Your task to perform on an android device: Go to Android settings Image 0: 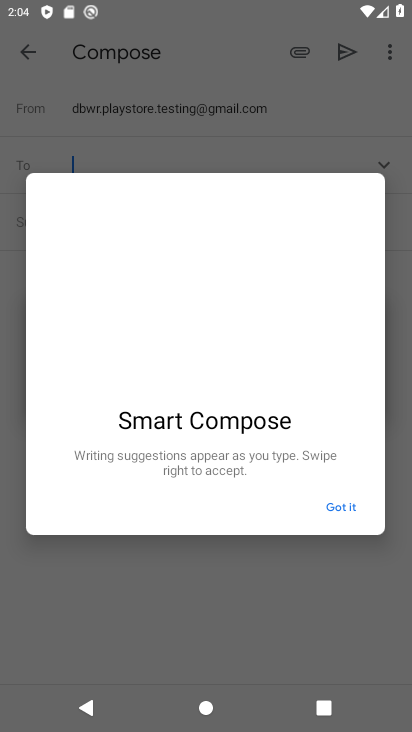
Step 0: press back button
Your task to perform on an android device: Go to Android settings Image 1: 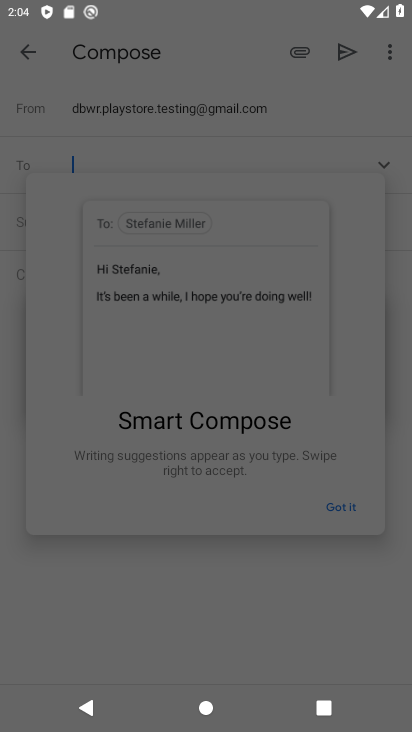
Step 1: press home button
Your task to perform on an android device: Go to Android settings Image 2: 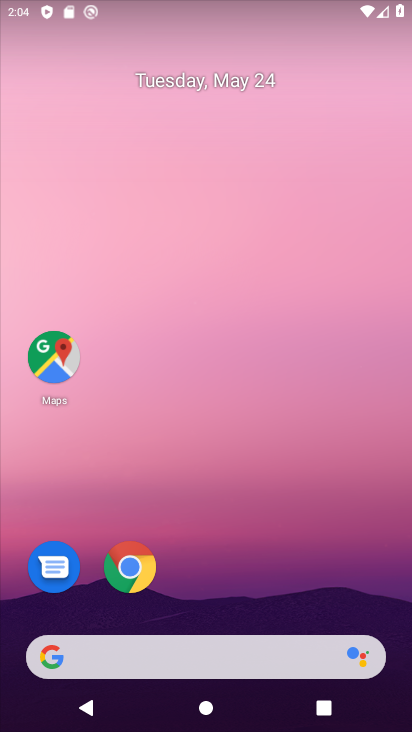
Step 2: drag from (219, 566) to (279, 22)
Your task to perform on an android device: Go to Android settings Image 3: 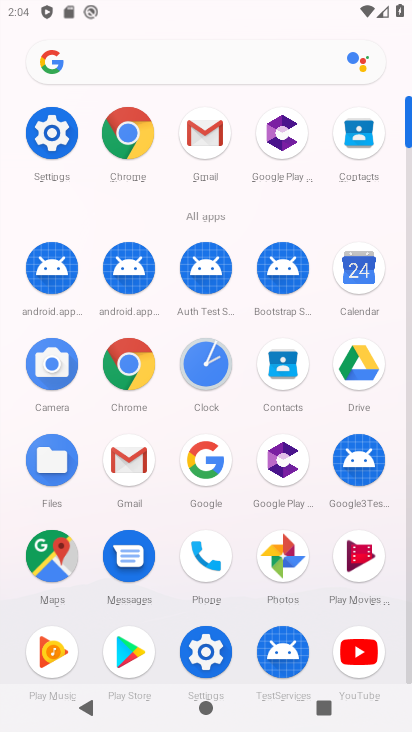
Step 3: click (48, 130)
Your task to perform on an android device: Go to Android settings Image 4: 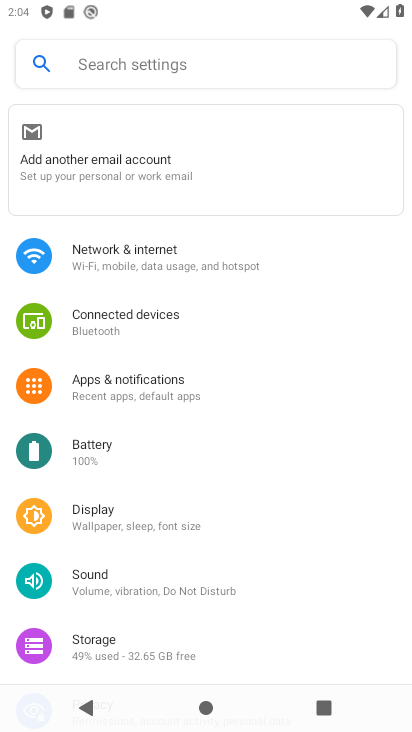
Step 4: drag from (163, 635) to (307, 46)
Your task to perform on an android device: Go to Android settings Image 5: 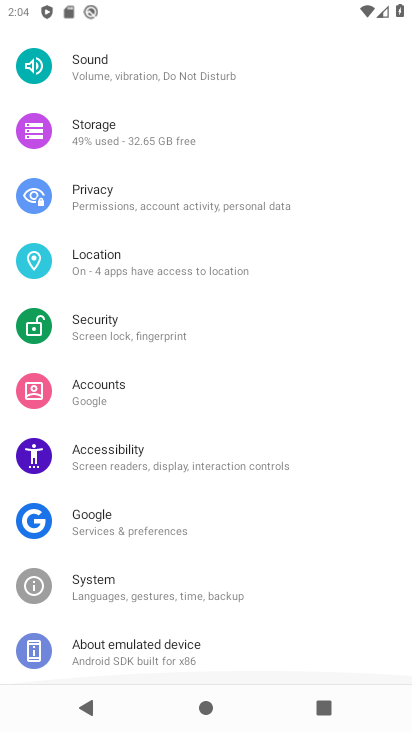
Step 5: drag from (228, 602) to (374, 50)
Your task to perform on an android device: Go to Android settings Image 6: 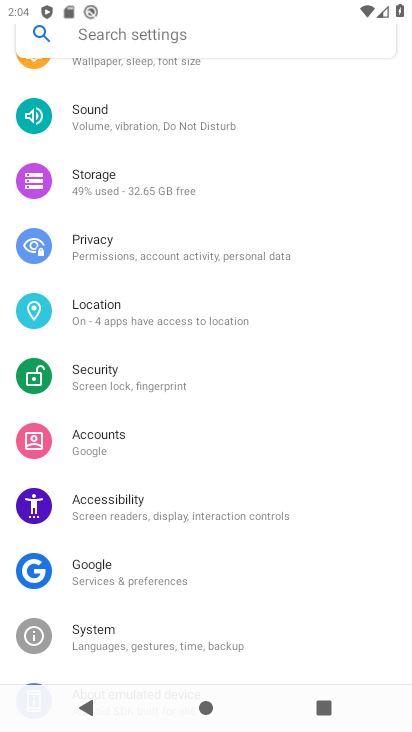
Step 6: drag from (174, 633) to (315, 0)
Your task to perform on an android device: Go to Android settings Image 7: 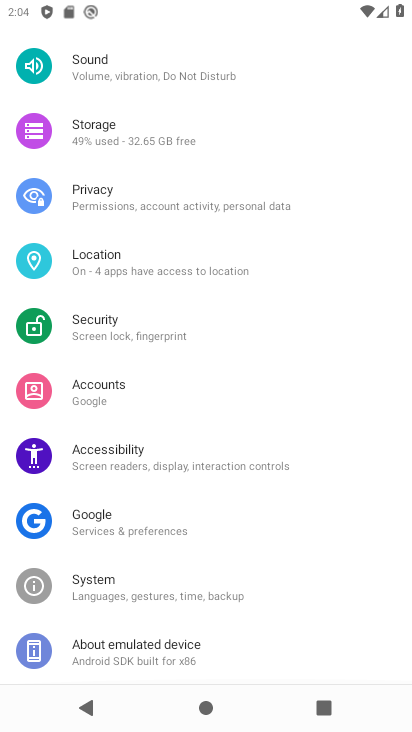
Step 7: click (153, 660)
Your task to perform on an android device: Go to Android settings Image 8: 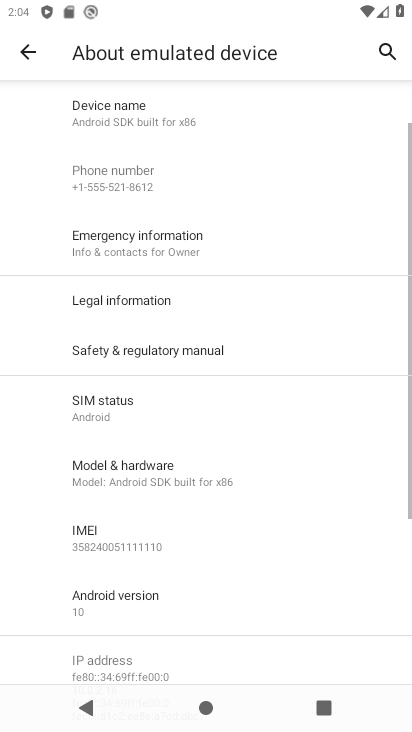
Step 8: task complete